Your task to perform on an android device: Go to Yahoo.com Image 0: 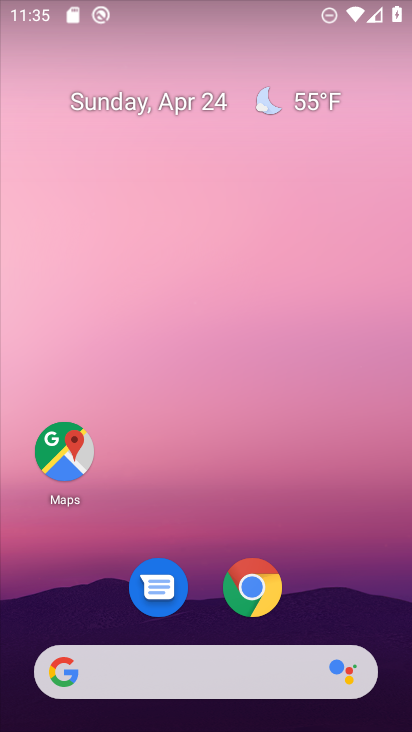
Step 0: press home button
Your task to perform on an android device: Go to Yahoo.com Image 1: 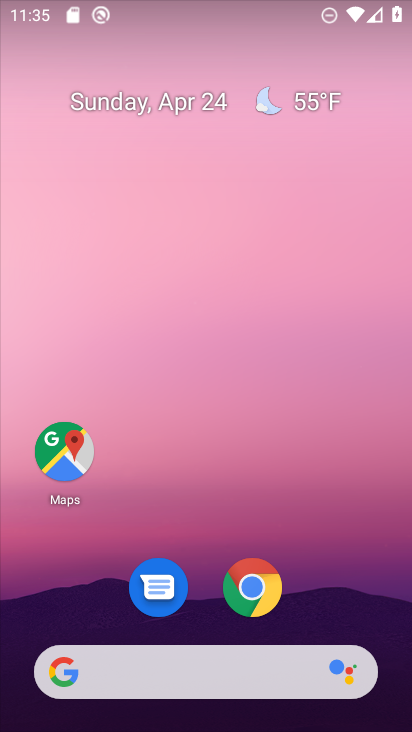
Step 1: drag from (335, 553) to (337, 179)
Your task to perform on an android device: Go to Yahoo.com Image 2: 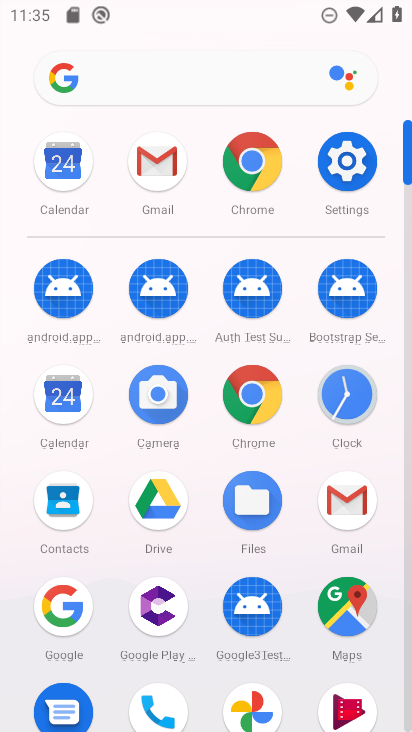
Step 2: click (263, 382)
Your task to perform on an android device: Go to Yahoo.com Image 3: 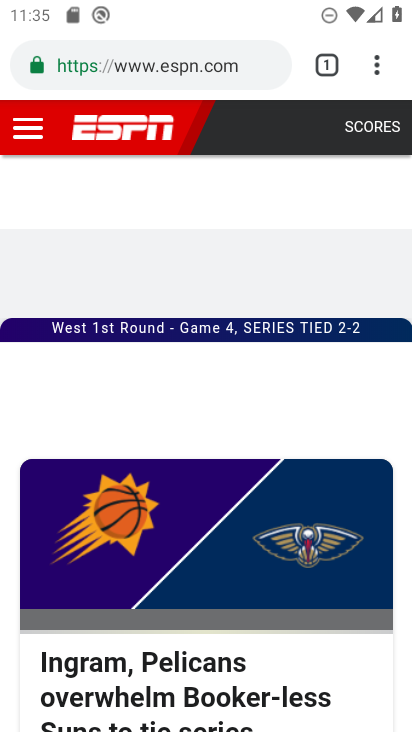
Step 3: click (167, 66)
Your task to perform on an android device: Go to Yahoo.com Image 4: 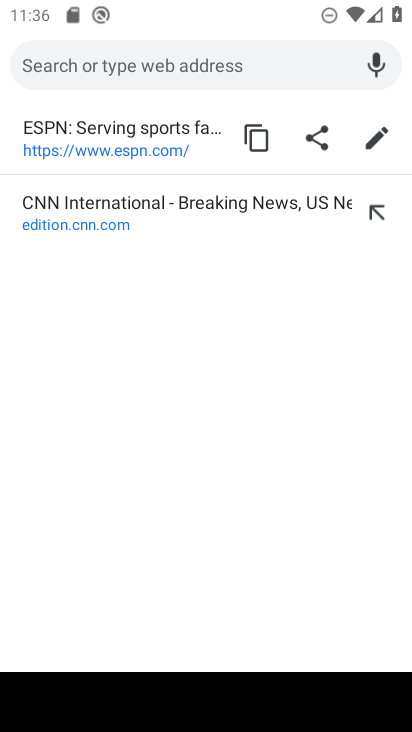
Step 4: type "yahoo.com"
Your task to perform on an android device: Go to Yahoo.com Image 5: 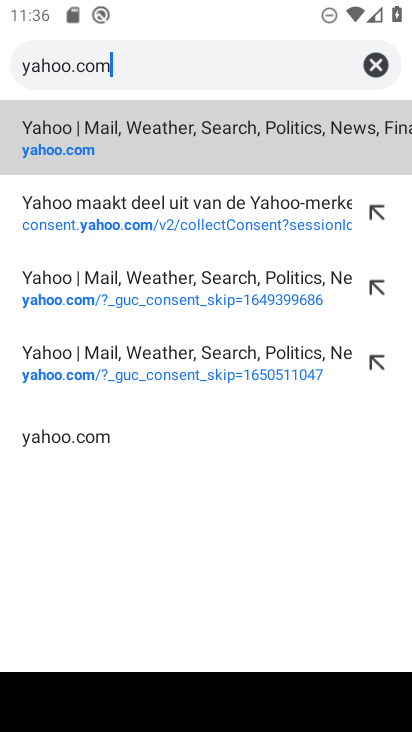
Step 5: click (87, 142)
Your task to perform on an android device: Go to Yahoo.com Image 6: 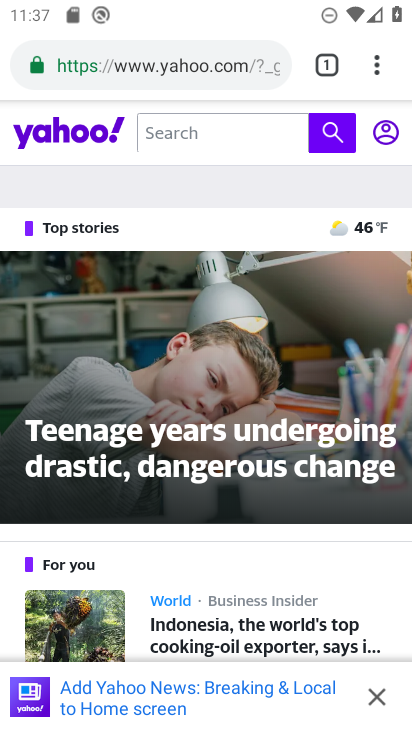
Step 6: task complete